Your task to perform on an android device: turn on wifi Image 0: 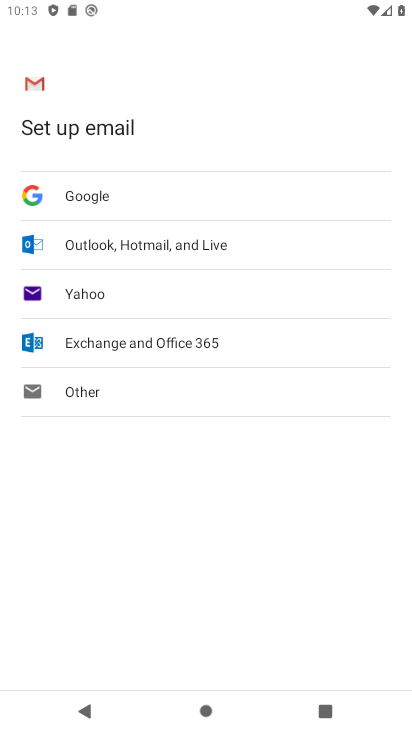
Step 0: press home button
Your task to perform on an android device: turn on wifi Image 1: 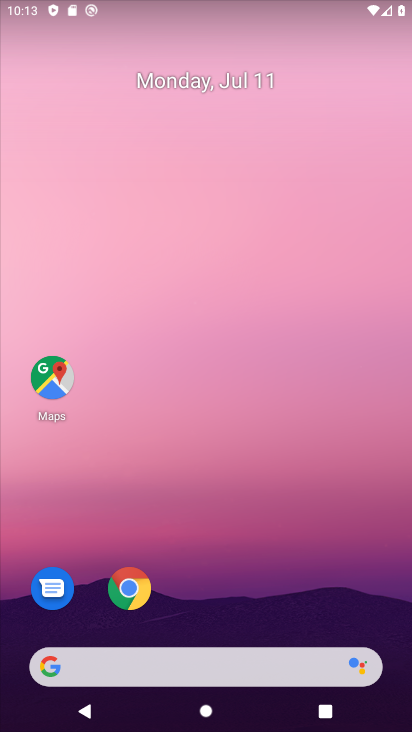
Step 1: drag from (246, 591) to (194, 170)
Your task to perform on an android device: turn on wifi Image 2: 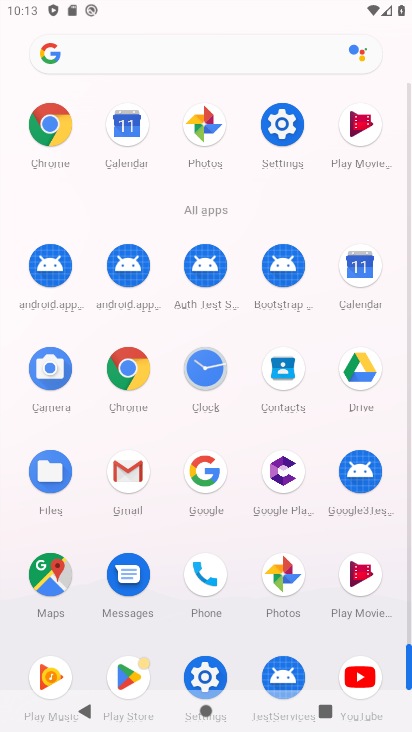
Step 2: click (281, 124)
Your task to perform on an android device: turn on wifi Image 3: 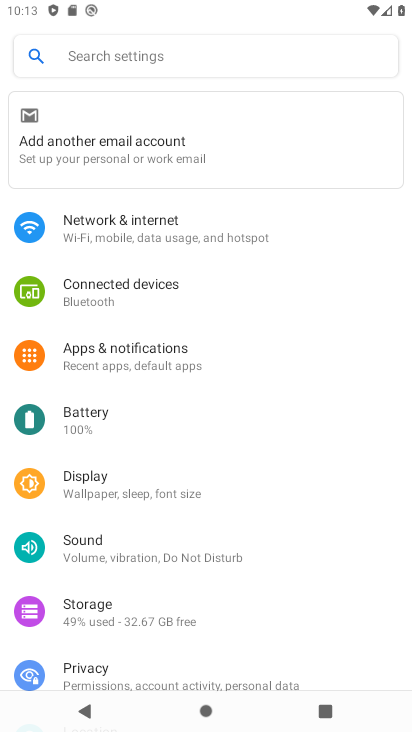
Step 3: click (144, 223)
Your task to perform on an android device: turn on wifi Image 4: 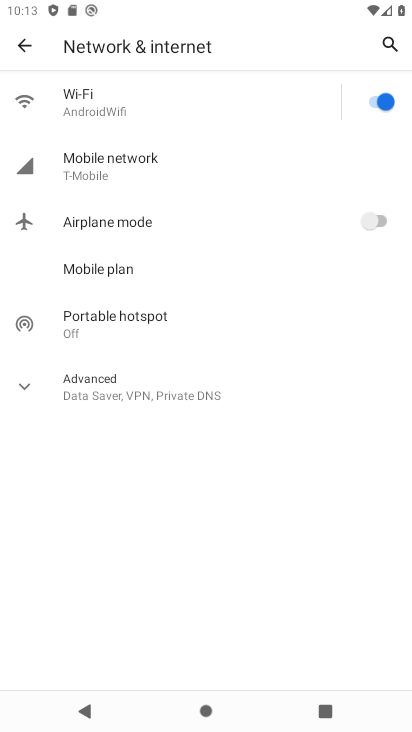
Step 4: task complete